Your task to perform on an android device: Open the map Image 0: 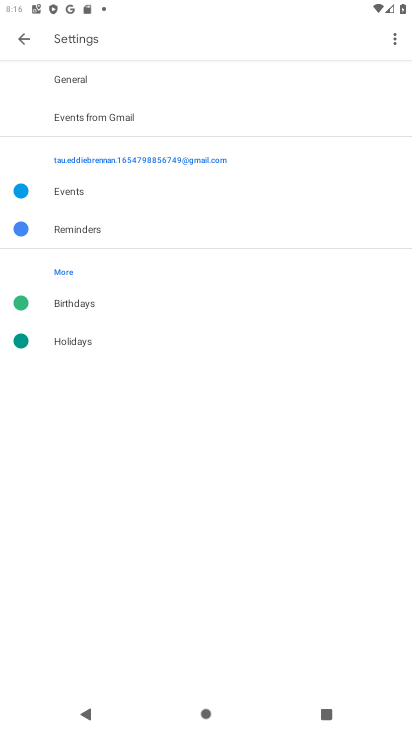
Step 0: press home button
Your task to perform on an android device: Open the map Image 1: 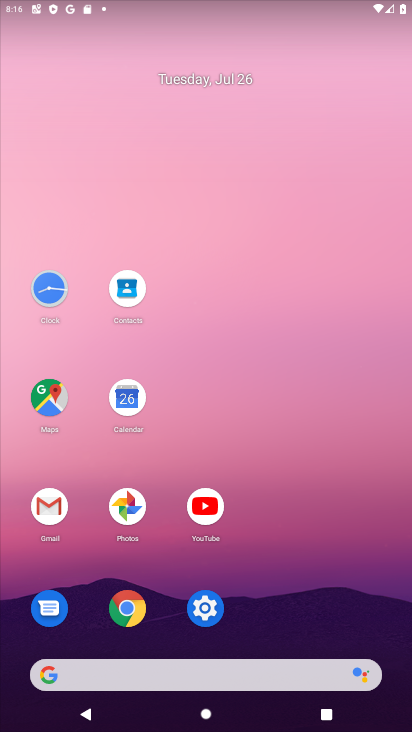
Step 1: click (42, 402)
Your task to perform on an android device: Open the map Image 2: 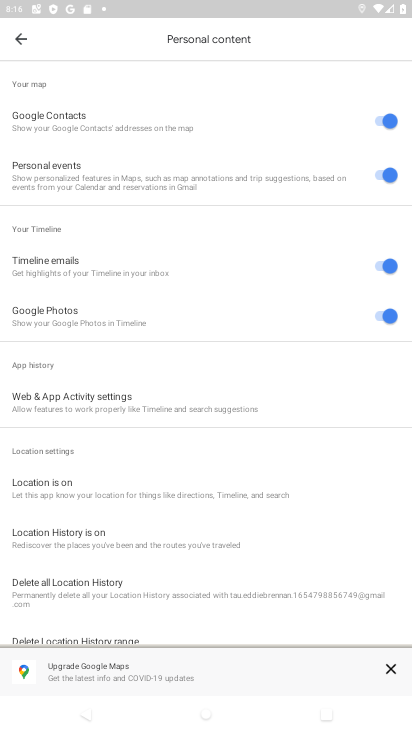
Step 2: click (22, 36)
Your task to perform on an android device: Open the map Image 3: 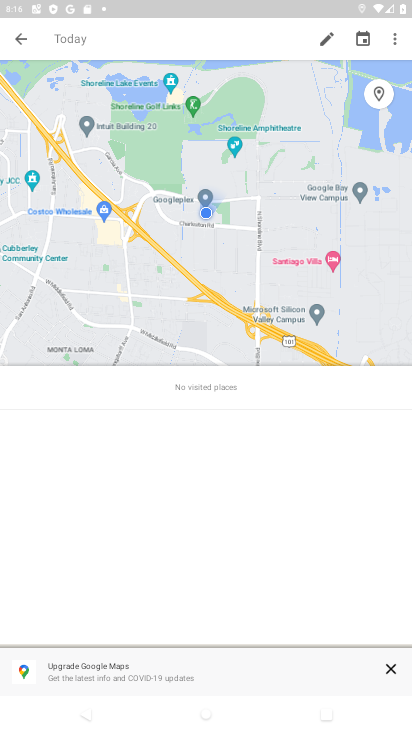
Step 3: click (15, 39)
Your task to perform on an android device: Open the map Image 4: 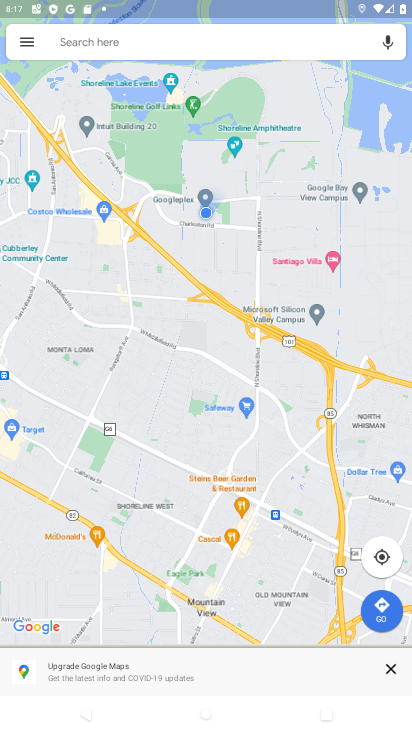
Step 4: task complete